Your task to perform on an android device: Check the news Image 0: 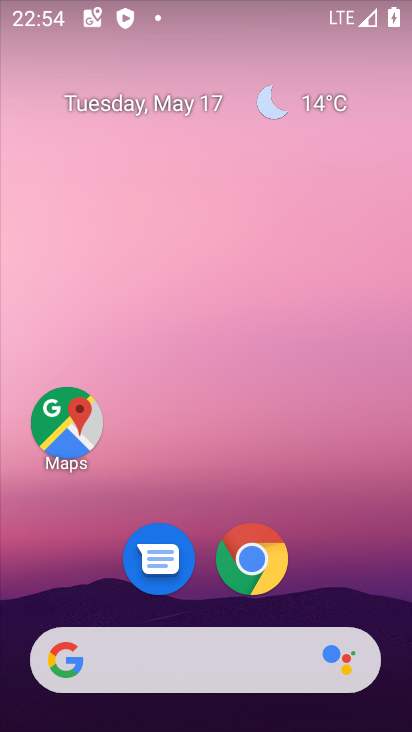
Step 0: click (251, 562)
Your task to perform on an android device: Check the news Image 1: 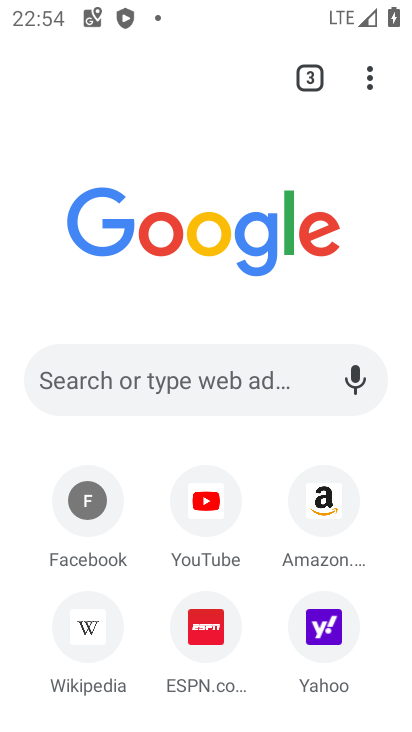
Step 1: click (212, 379)
Your task to perform on an android device: Check the news Image 2: 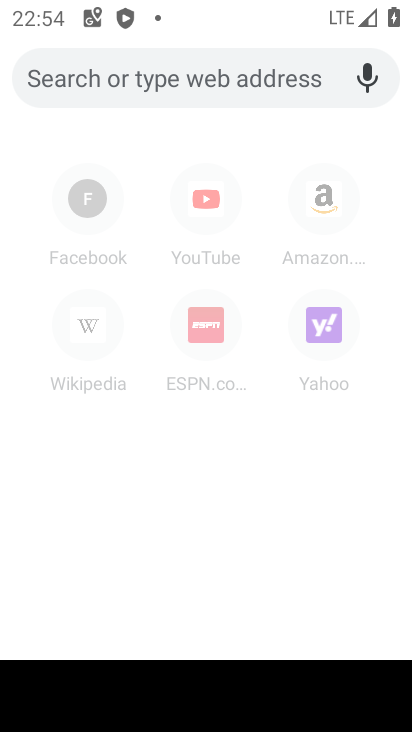
Step 2: type "news"
Your task to perform on an android device: Check the news Image 3: 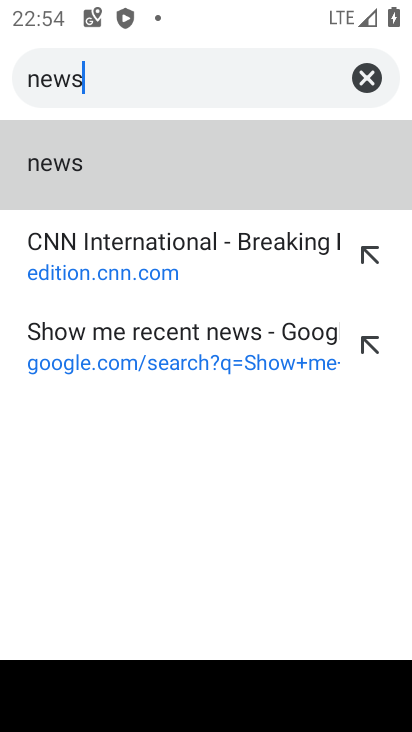
Step 3: click (42, 165)
Your task to perform on an android device: Check the news Image 4: 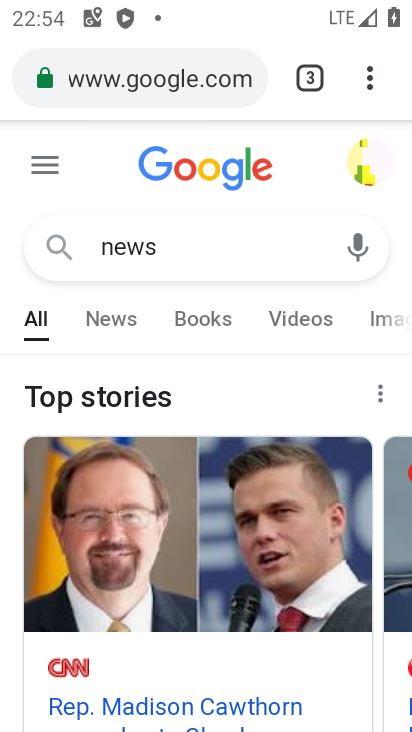
Step 4: click (131, 316)
Your task to perform on an android device: Check the news Image 5: 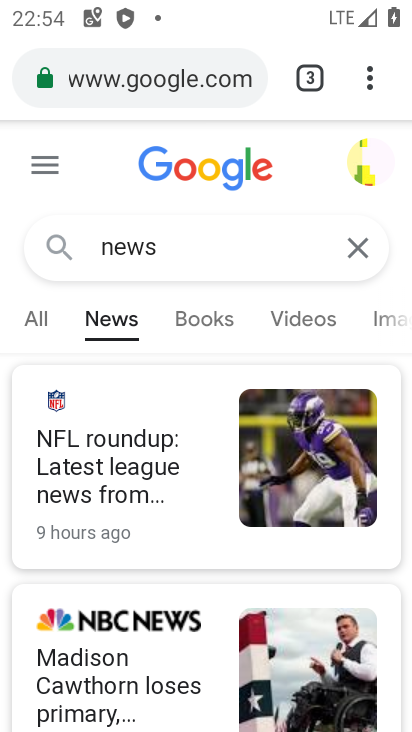
Step 5: task complete